Your task to perform on an android device: Open the calendar and show me this week's events? Image 0: 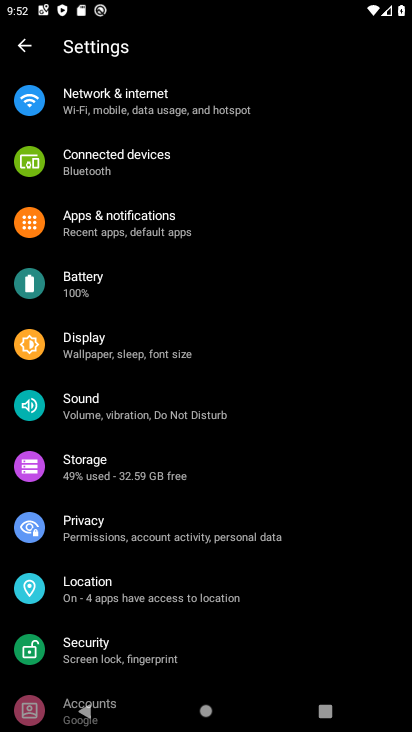
Step 0: press home button
Your task to perform on an android device: Open the calendar and show me this week's events? Image 1: 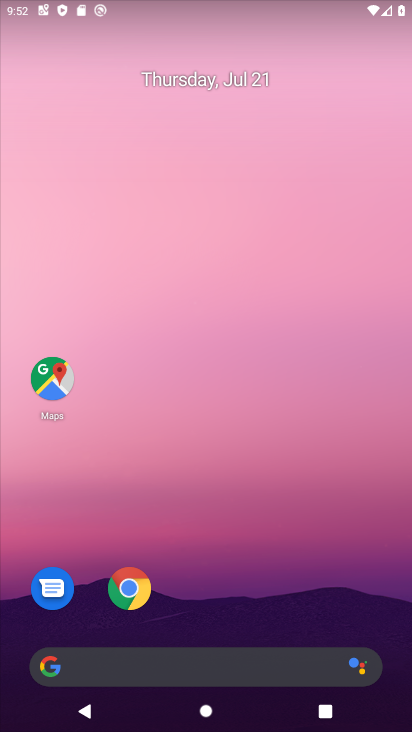
Step 1: drag from (396, 678) to (252, 116)
Your task to perform on an android device: Open the calendar and show me this week's events? Image 2: 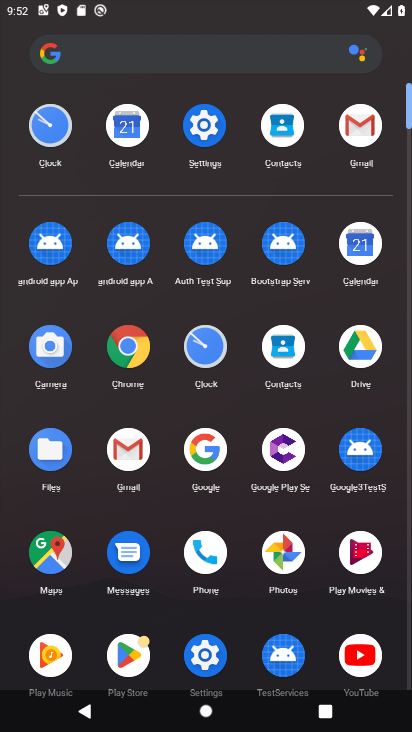
Step 2: click (366, 247)
Your task to perform on an android device: Open the calendar and show me this week's events? Image 3: 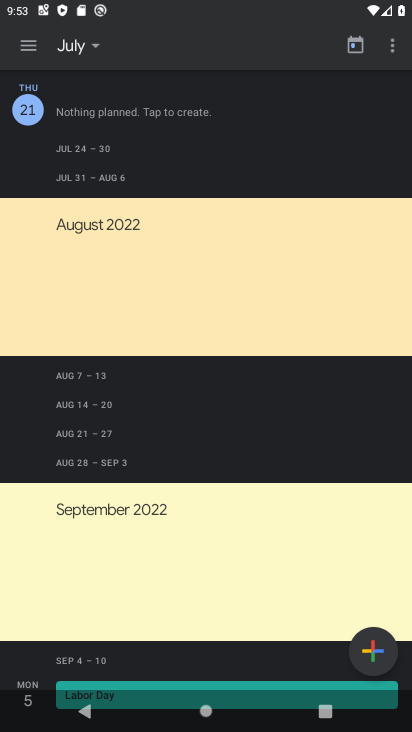
Step 3: click (30, 48)
Your task to perform on an android device: Open the calendar and show me this week's events? Image 4: 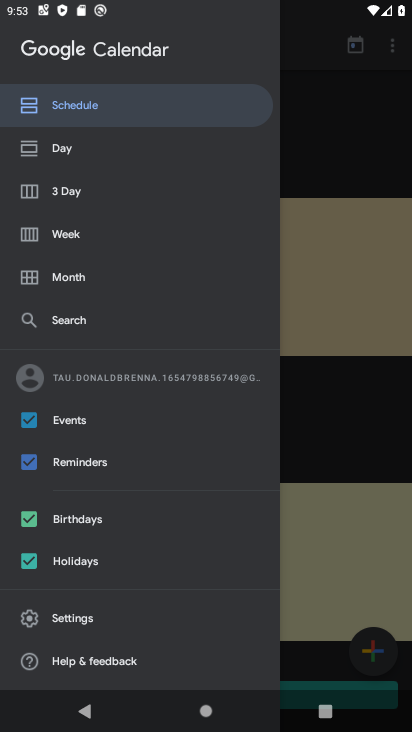
Step 4: click (62, 224)
Your task to perform on an android device: Open the calendar and show me this week's events? Image 5: 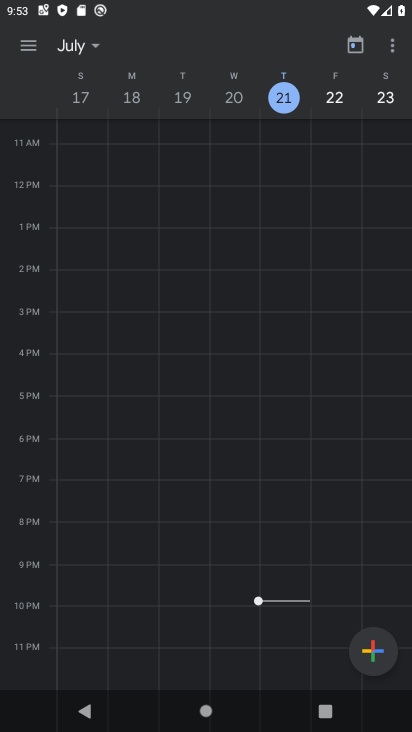
Step 5: click (26, 38)
Your task to perform on an android device: Open the calendar and show me this week's events? Image 6: 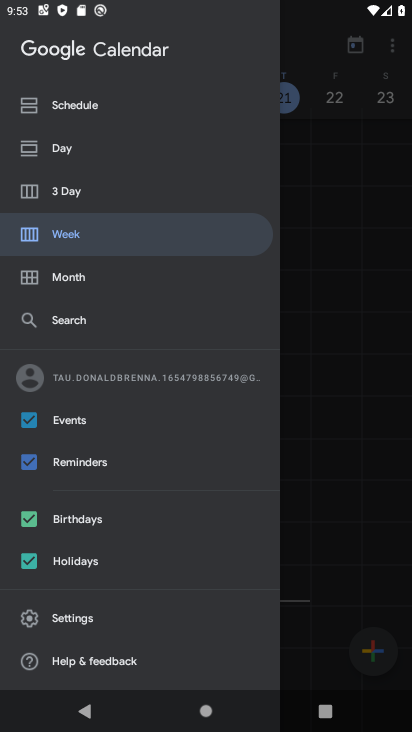
Step 6: click (68, 105)
Your task to perform on an android device: Open the calendar and show me this week's events? Image 7: 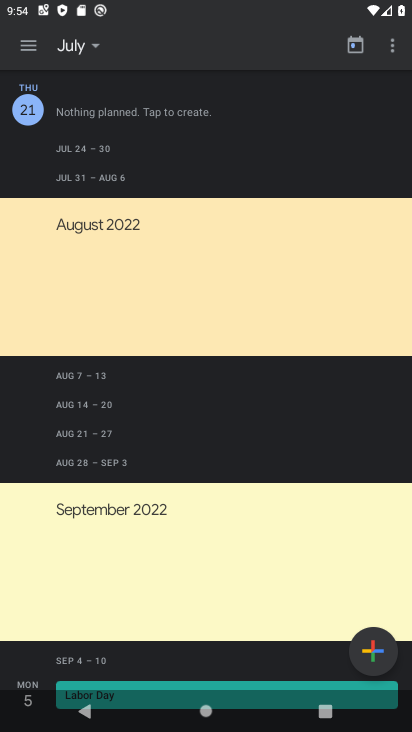
Step 7: task complete